Your task to perform on an android device: delete location history Image 0: 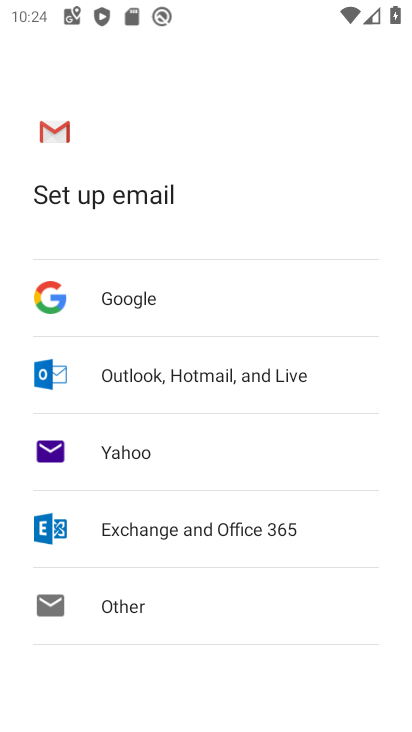
Step 0: press home button
Your task to perform on an android device: delete location history Image 1: 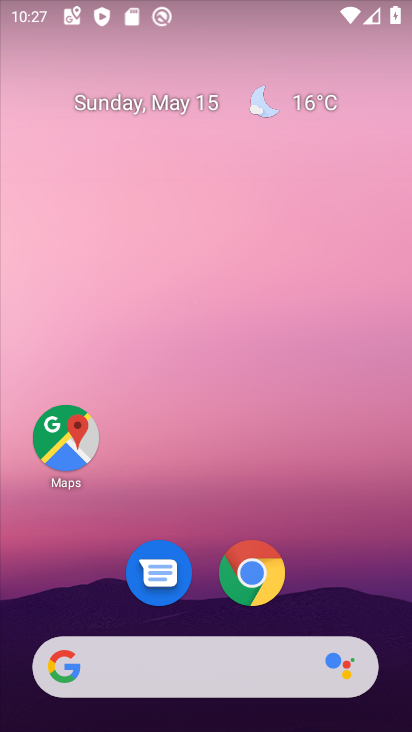
Step 1: click (50, 441)
Your task to perform on an android device: delete location history Image 2: 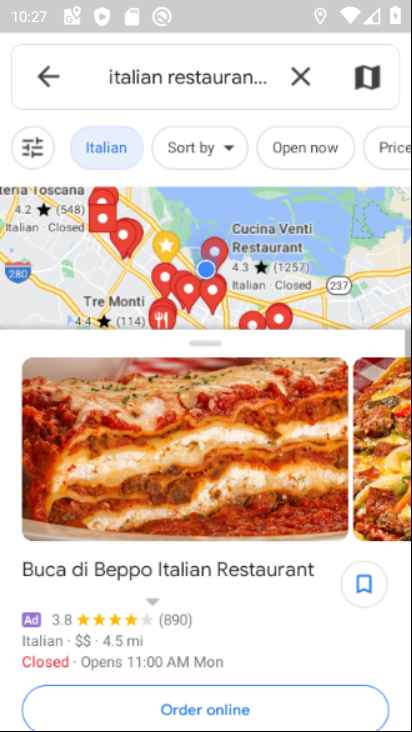
Step 2: click (49, 80)
Your task to perform on an android device: delete location history Image 3: 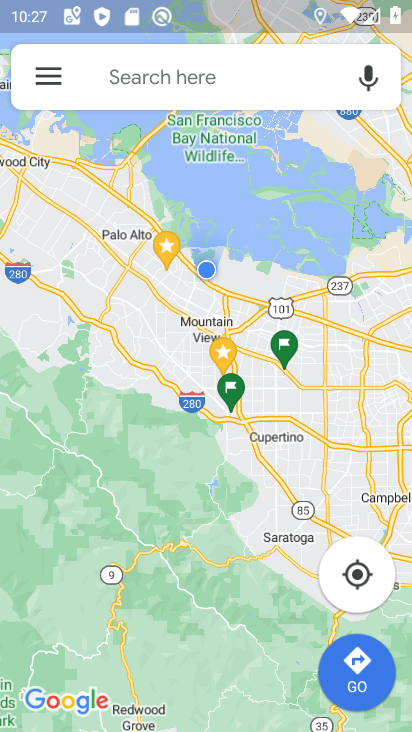
Step 3: click (47, 79)
Your task to perform on an android device: delete location history Image 4: 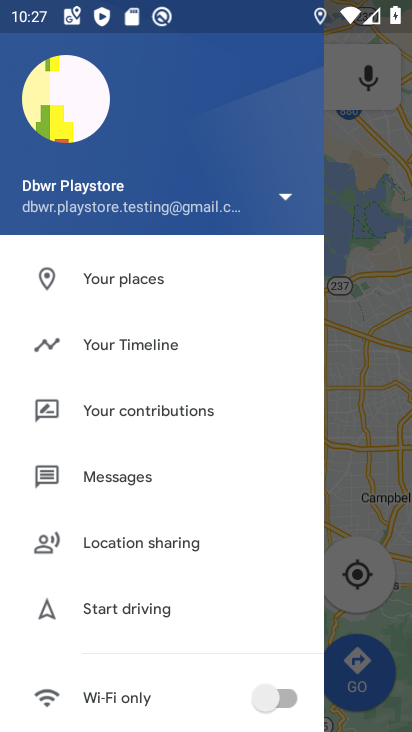
Step 4: drag from (170, 570) to (183, 352)
Your task to perform on an android device: delete location history Image 5: 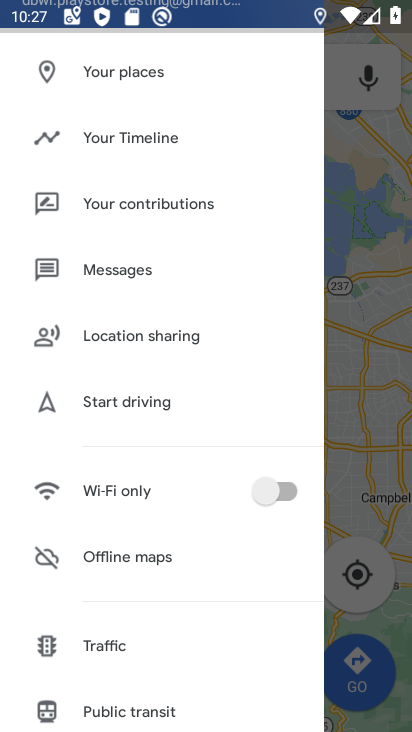
Step 5: click (173, 135)
Your task to perform on an android device: delete location history Image 6: 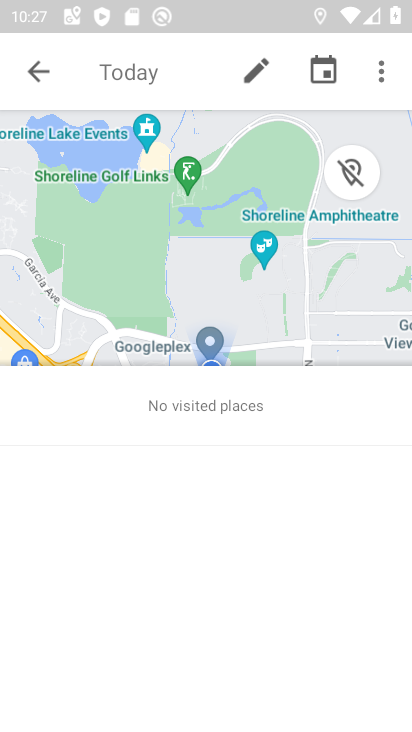
Step 6: click (381, 79)
Your task to perform on an android device: delete location history Image 7: 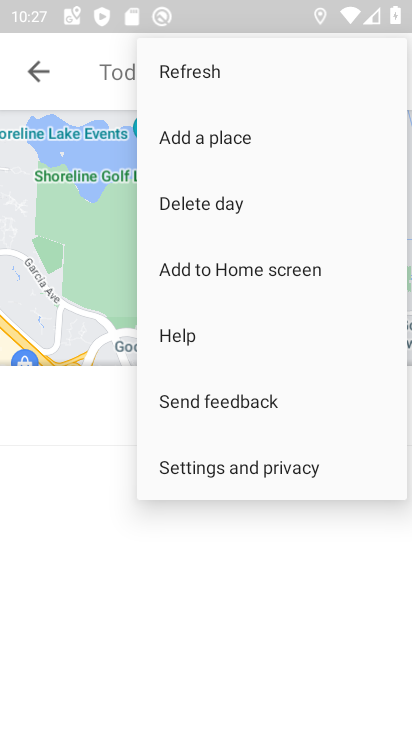
Step 7: click (225, 476)
Your task to perform on an android device: delete location history Image 8: 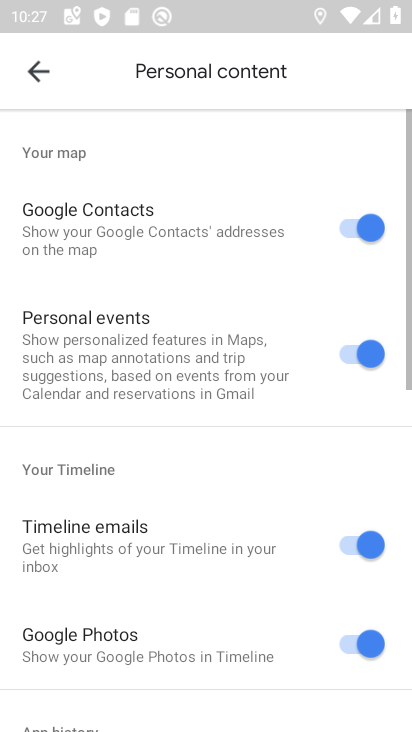
Step 8: drag from (158, 597) to (136, 182)
Your task to perform on an android device: delete location history Image 9: 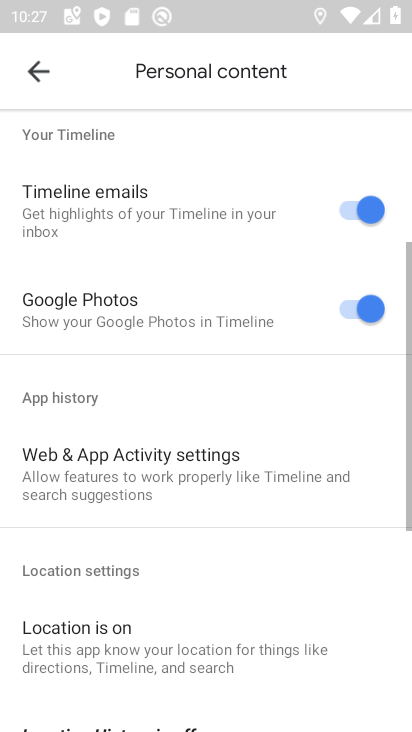
Step 9: drag from (206, 493) to (191, 216)
Your task to perform on an android device: delete location history Image 10: 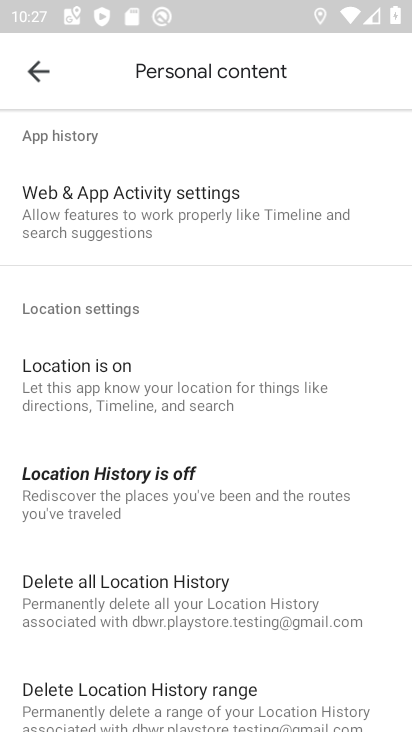
Step 10: click (121, 485)
Your task to perform on an android device: delete location history Image 11: 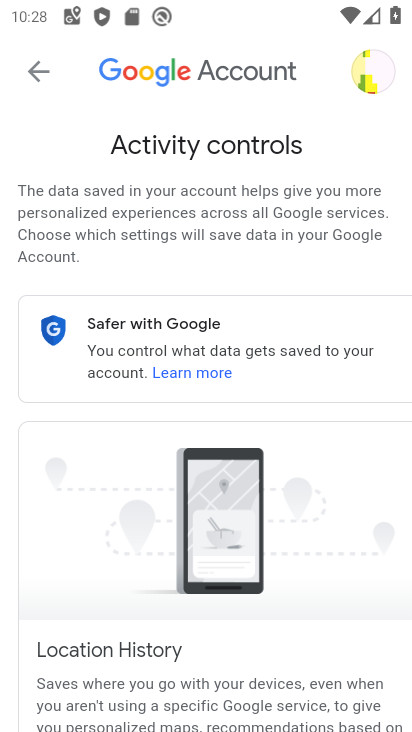
Step 11: task complete